Your task to perform on an android device: Open the calendar and show me this week's events Image 0: 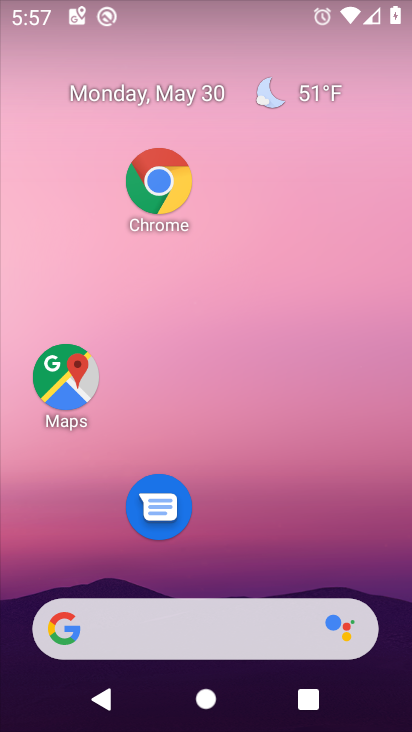
Step 0: press home button
Your task to perform on an android device: Open the calendar and show me this week's events Image 1: 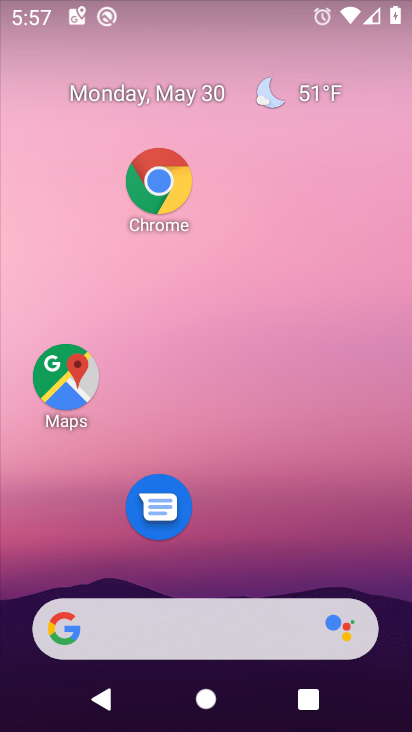
Step 1: drag from (313, 566) to (343, 185)
Your task to perform on an android device: Open the calendar and show me this week's events Image 2: 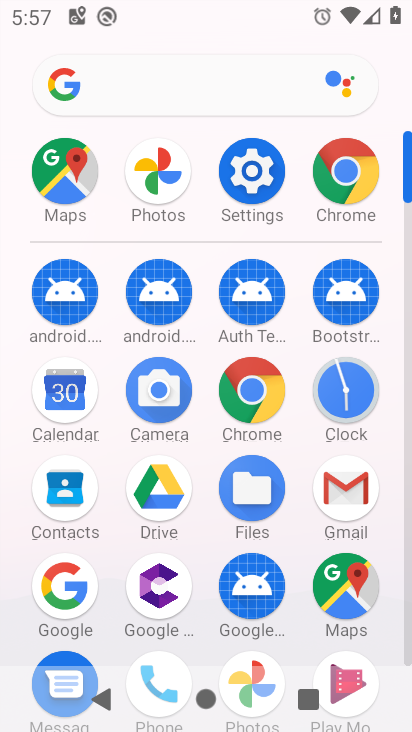
Step 2: click (72, 406)
Your task to perform on an android device: Open the calendar and show me this week's events Image 3: 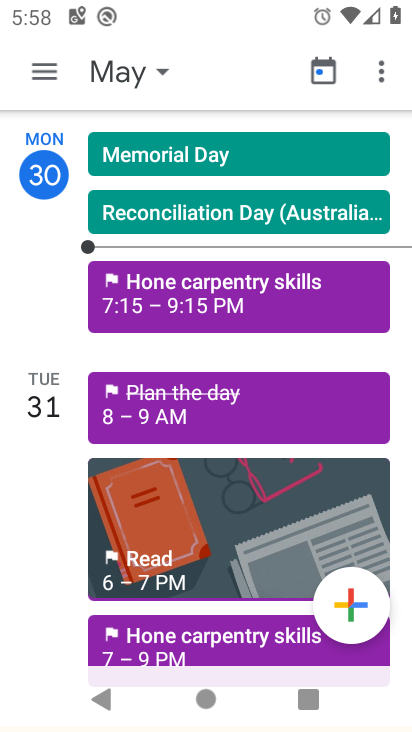
Step 3: click (56, 70)
Your task to perform on an android device: Open the calendar and show me this week's events Image 4: 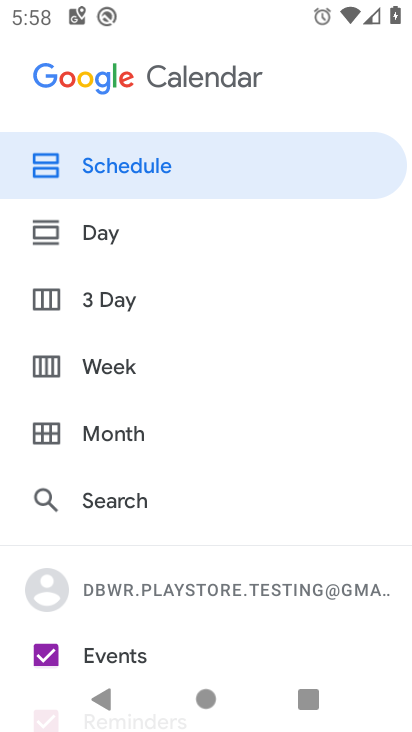
Step 4: drag from (390, 321) to (0, 447)
Your task to perform on an android device: Open the calendar and show me this week's events Image 5: 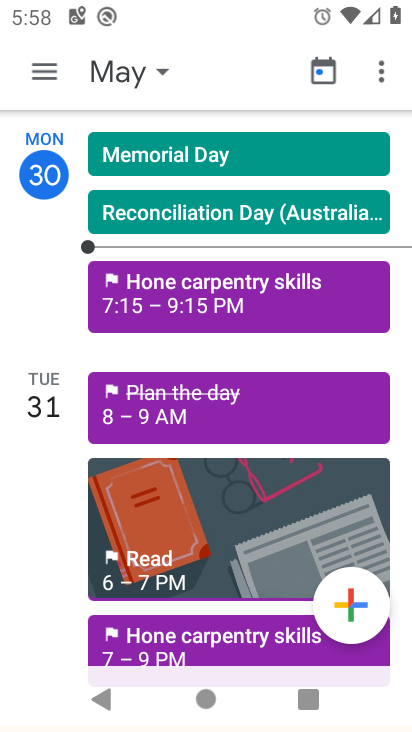
Step 5: click (164, 75)
Your task to perform on an android device: Open the calendar and show me this week's events Image 6: 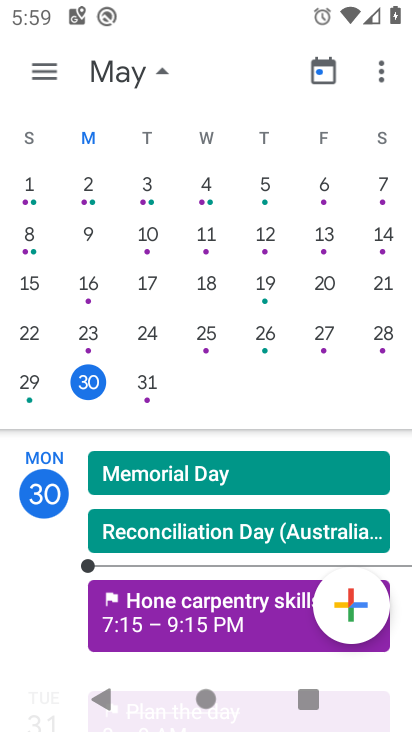
Step 6: drag from (374, 251) to (3, 319)
Your task to perform on an android device: Open the calendar and show me this week's events Image 7: 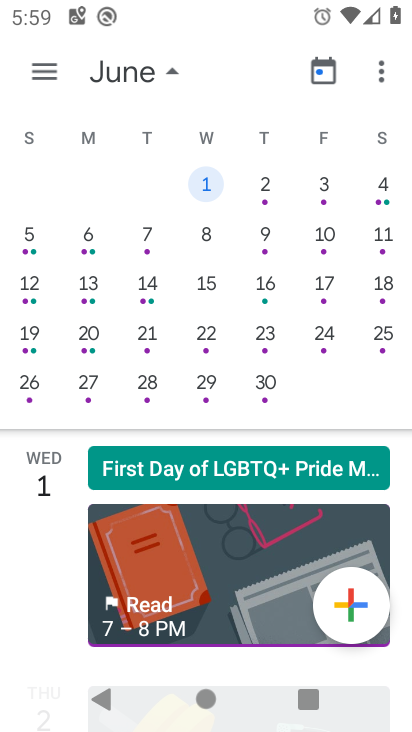
Step 7: click (196, 182)
Your task to perform on an android device: Open the calendar and show me this week's events Image 8: 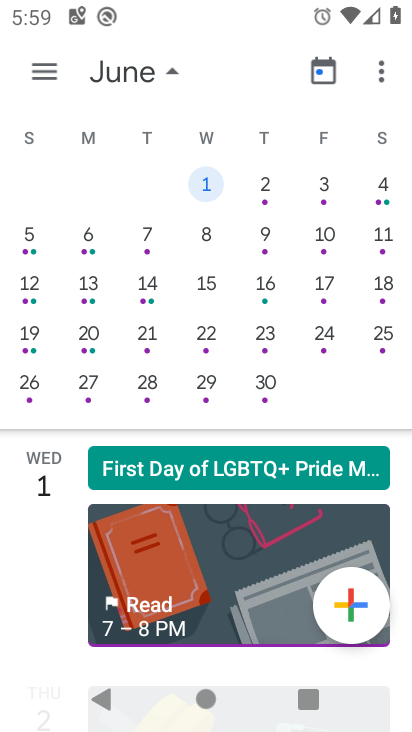
Step 8: click (211, 189)
Your task to perform on an android device: Open the calendar and show me this week's events Image 9: 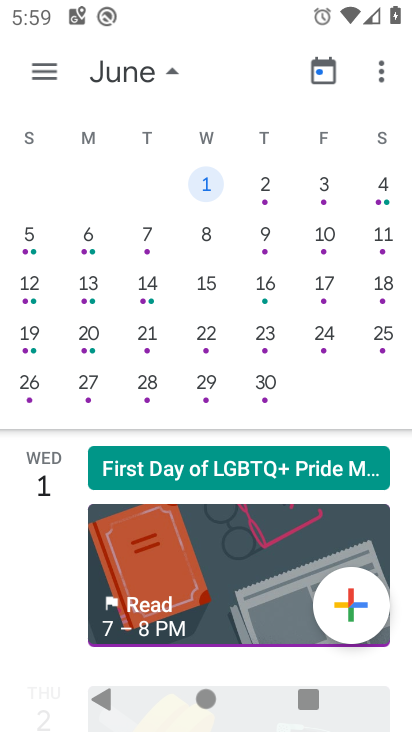
Step 9: task complete